Your task to perform on an android device: Open the web browser Image 0: 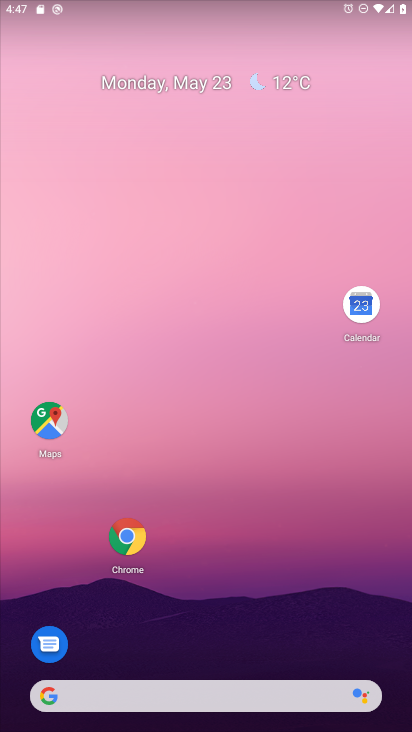
Step 0: click (131, 530)
Your task to perform on an android device: Open the web browser Image 1: 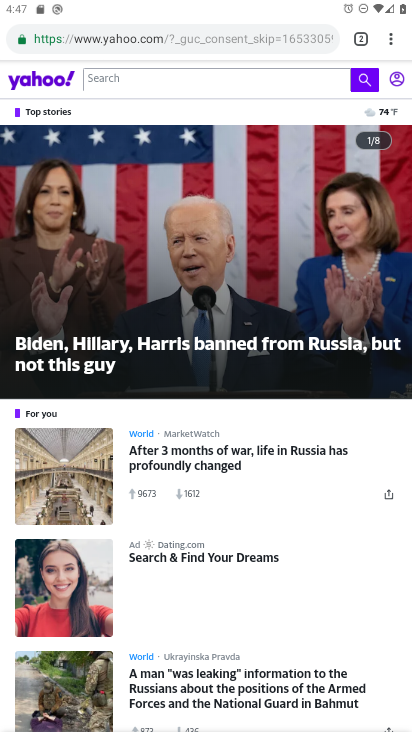
Step 1: task complete